Your task to perform on an android device: change your default location settings in chrome Image 0: 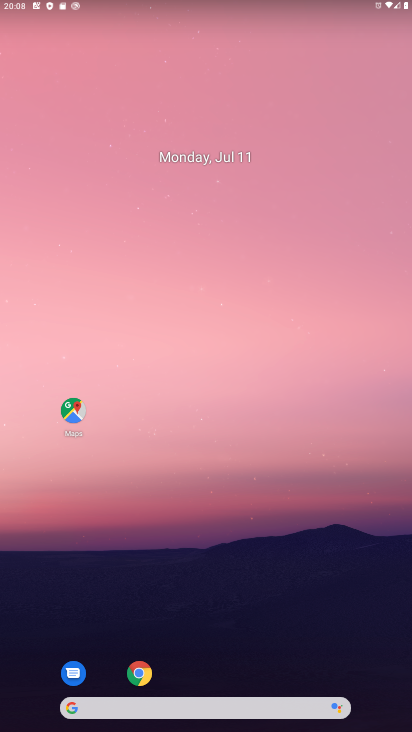
Step 0: press home button
Your task to perform on an android device: change your default location settings in chrome Image 1: 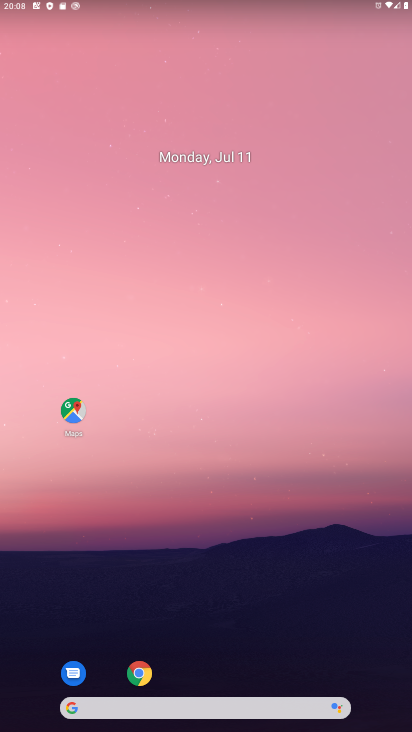
Step 1: click (136, 666)
Your task to perform on an android device: change your default location settings in chrome Image 2: 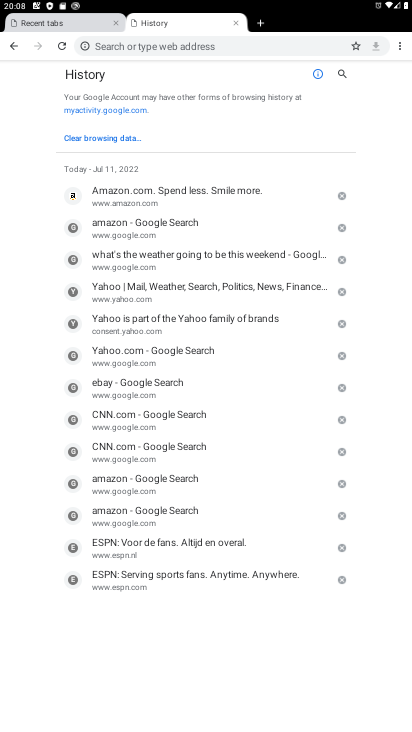
Step 2: click (236, 20)
Your task to perform on an android device: change your default location settings in chrome Image 3: 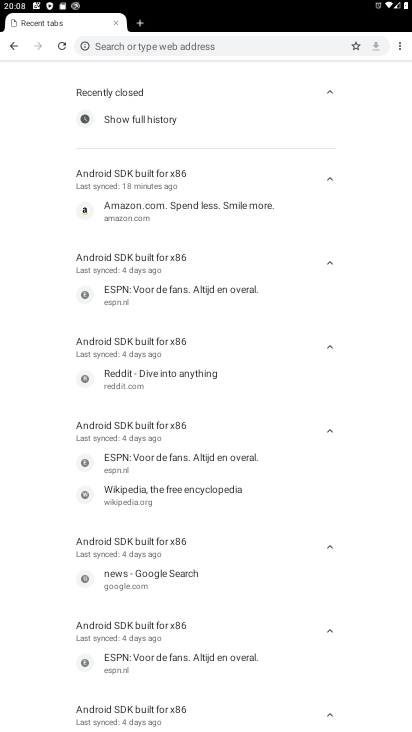
Step 3: click (400, 46)
Your task to perform on an android device: change your default location settings in chrome Image 4: 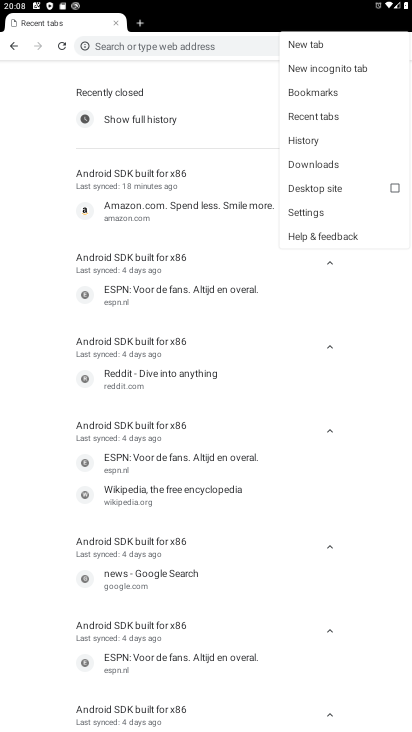
Step 4: click (325, 212)
Your task to perform on an android device: change your default location settings in chrome Image 5: 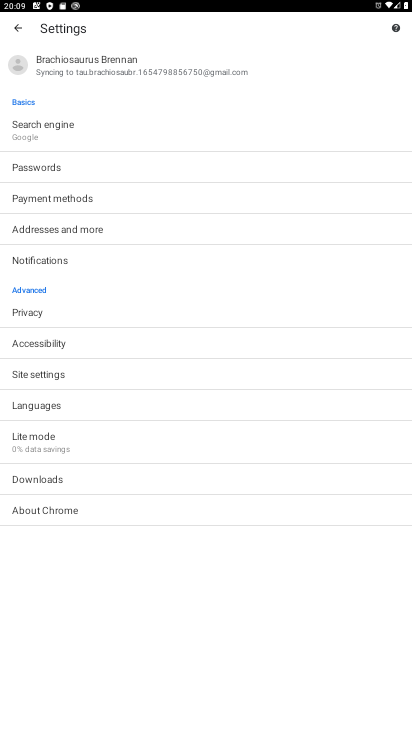
Step 5: click (71, 375)
Your task to perform on an android device: change your default location settings in chrome Image 6: 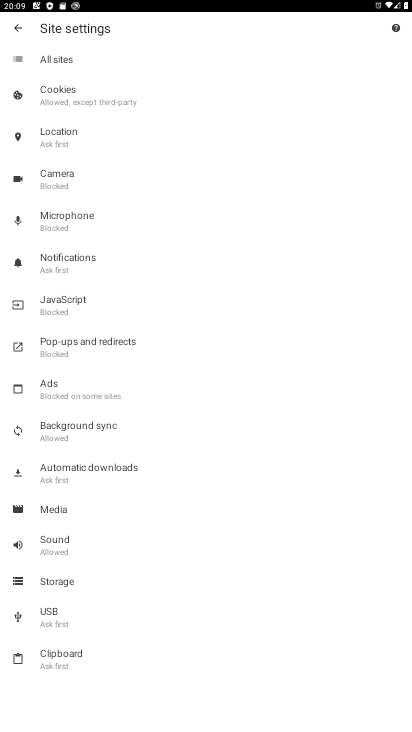
Step 6: click (92, 133)
Your task to perform on an android device: change your default location settings in chrome Image 7: 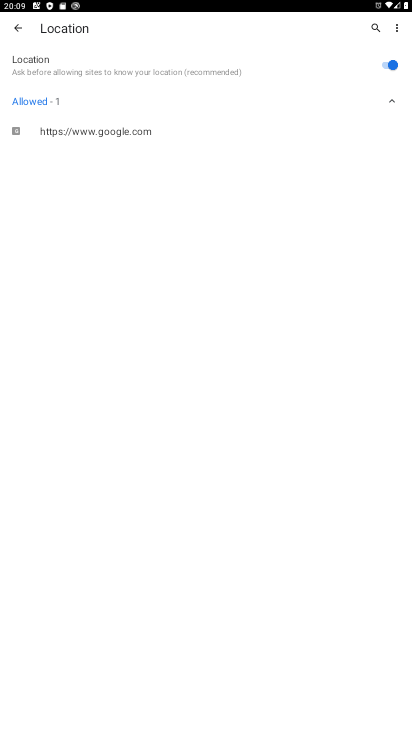
Step 7: click (382, 62)
Your task to perform on an android device: change your default location settings in chrome Image 8: 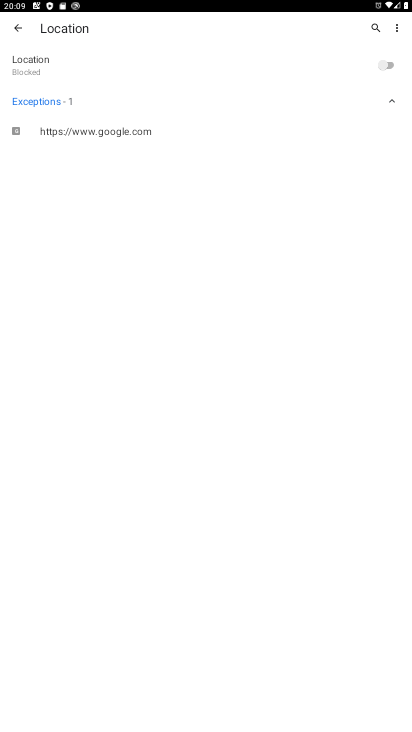
Step 8: task complete